Your task to perform on an android device: Go to network settings Image 0: 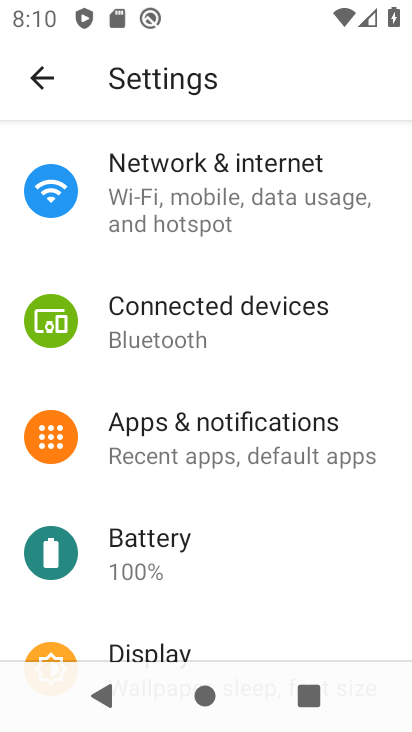
Step 0: click (246, 214)
Your task to perform on an android device: Go to network settings Image 1: 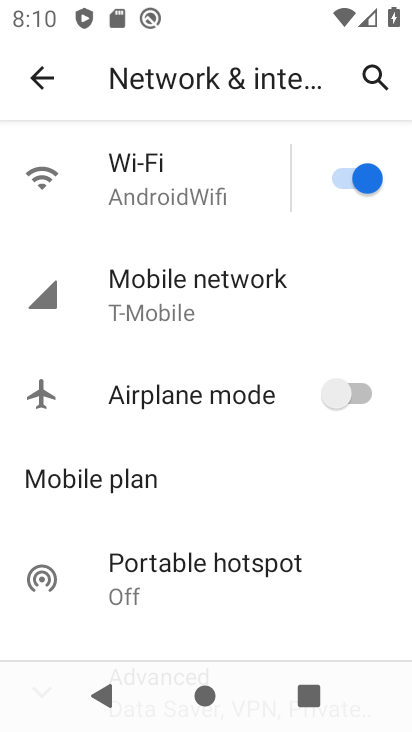
Step 1: task complete